Your task to perform on an android device: find which apps use the phone's location Image 0: 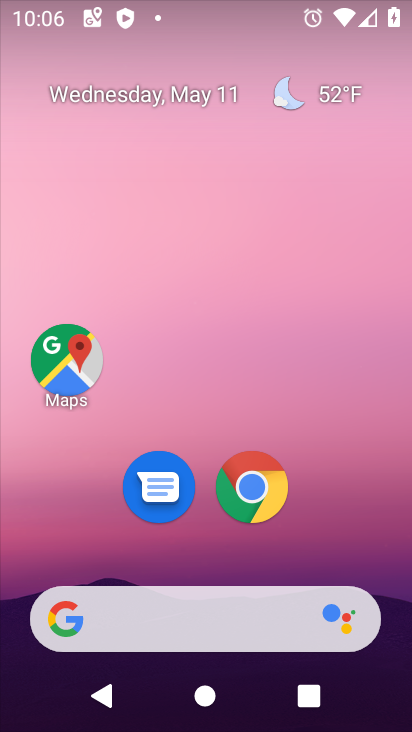
Step 0: drag from (192, 552) to (209, 240)
Your task to perform on an android device: find which apps use the phone's location Image 1: 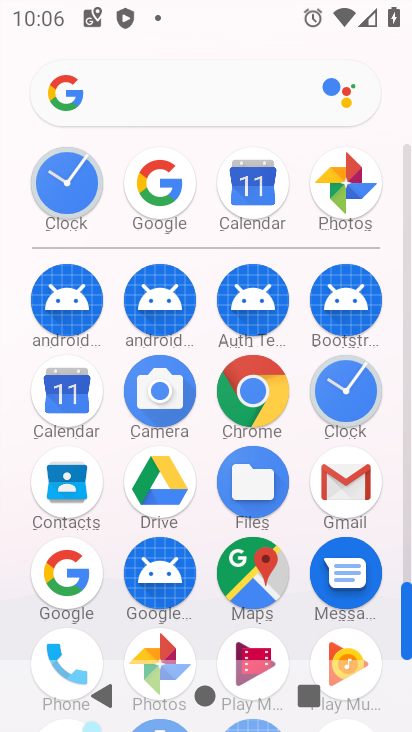
Step 1: drag from (189, 593) to (189, 341)
Your task to perform on an android device: find which apps use the phone's location Image 2: 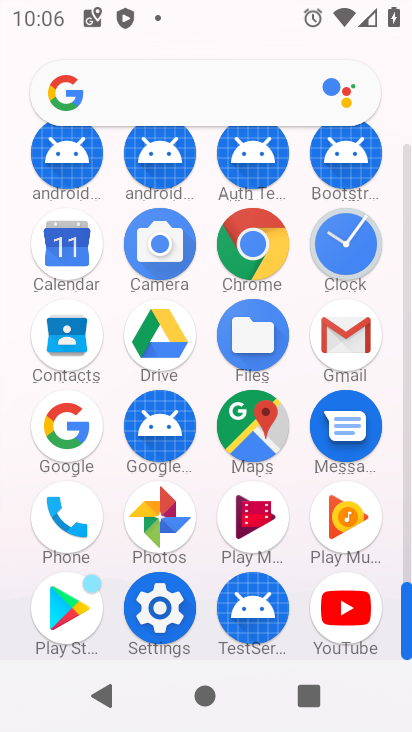
Step 2: click (153, 596)
Your task to perform on an android device: find which apps use the phone's location Image 3: 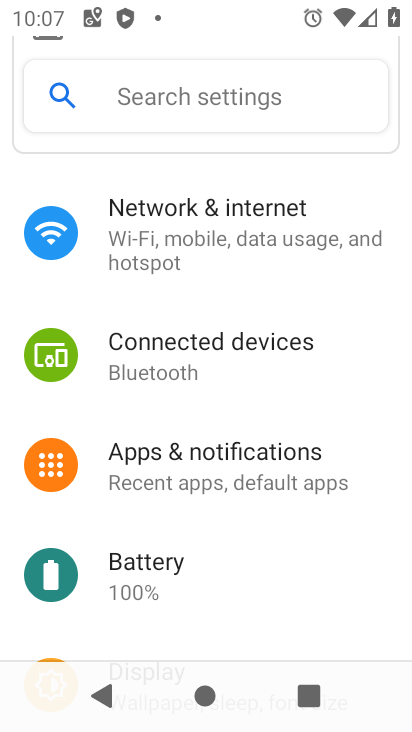
Step 3: drag from (196, 552) to (185, 252)
Your task to perform on an android device: find which apps use the phone's location Image 4: 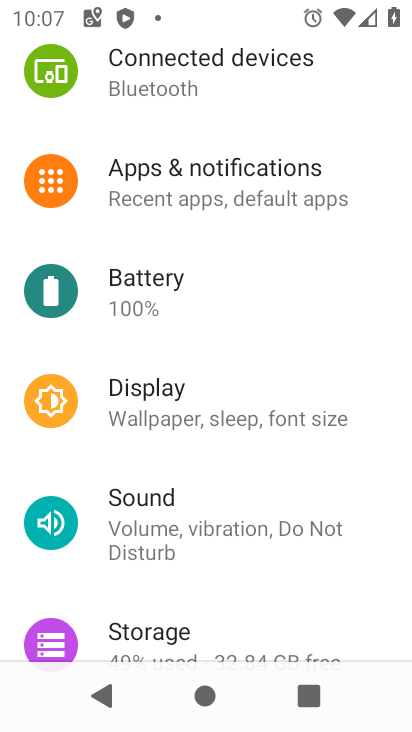
Step 4: drag from (185, 602) to (188, 306)
Your task to perform on an android device: find which apps use the phone's location Image 5: 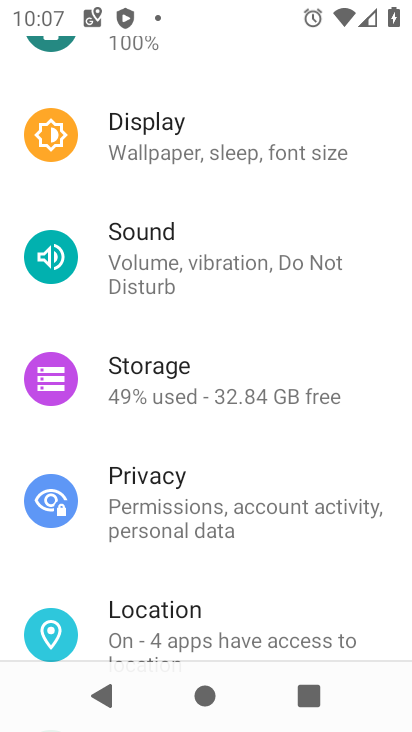
Step 5: click (146, 598)
Your task to perform on an android device: find which apps use the phone's location Image 6: 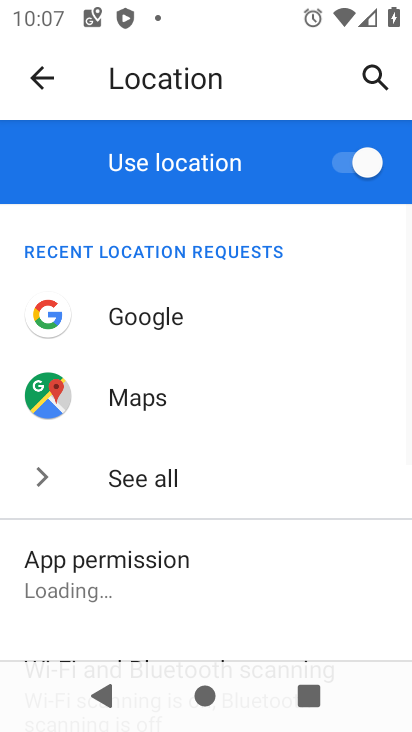
Step 6: drag from (155, 510) to (157, 354)
Your task to perform on an android device: find which apps use the phone's location Image 7: 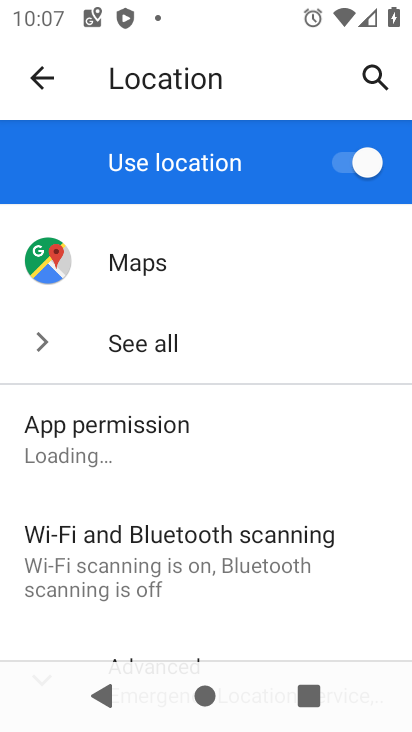
Step 7: drag from (154, 496) to (154, 327)
Your task to perform on an android device: find which apps use the phone's location Image 8: 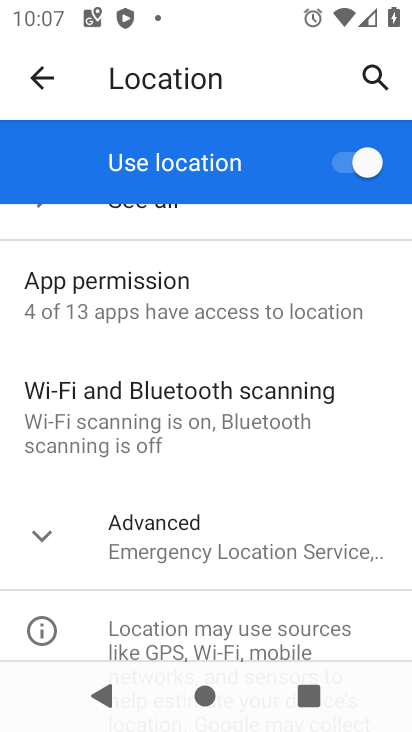
Step 8: click (154, 327)
Your task to perform on an android device: find which apps use the phone's location Image 9: 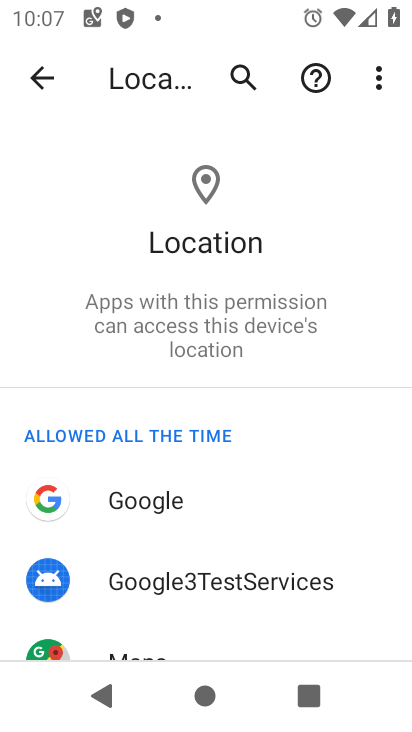
Step 9: task complete